Your task to perform on an android device: toggle airplane mode Image 0: 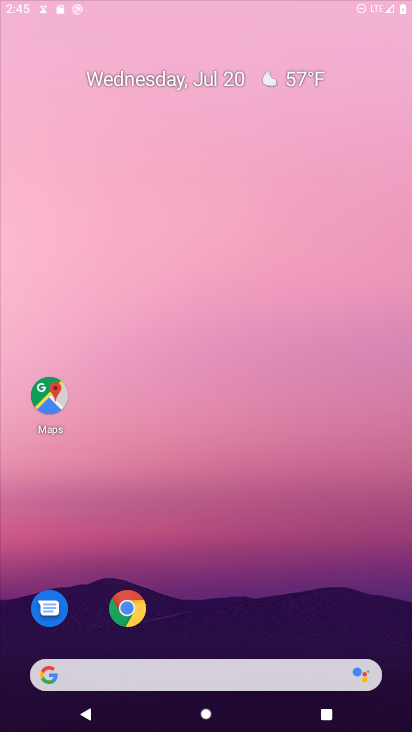
Step 0: drag from (239, 711) to (222, 356)
Your task to perform on an android device: toggle airplane mode Image 1: 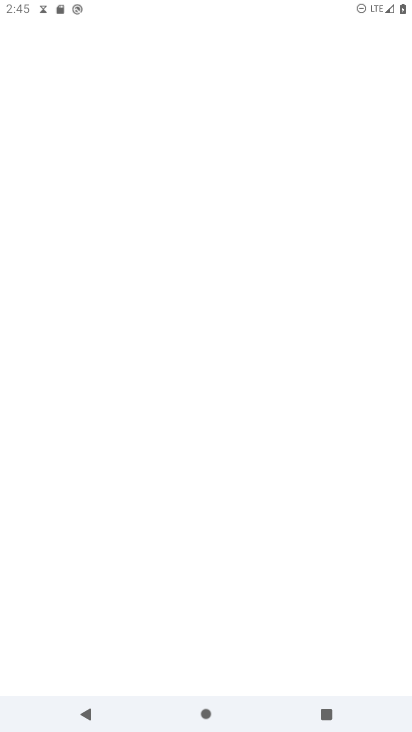
Step 1: press home button
Your task to perform on an android device: toggle airplane mode Image 2: 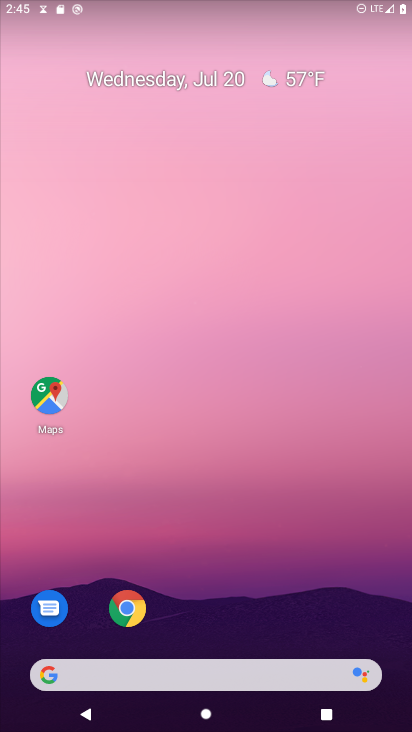
Step 2: drag from (235, 725) to (228, 270)
Your task to perform on an android device: toggle airplane mode Image 3: 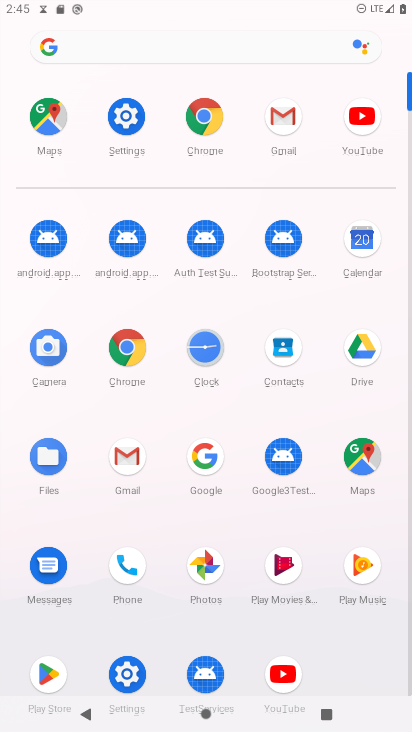
Step 3: click (128, 112)
Your task to perform on an android device: toggle airplane mode Image 4: 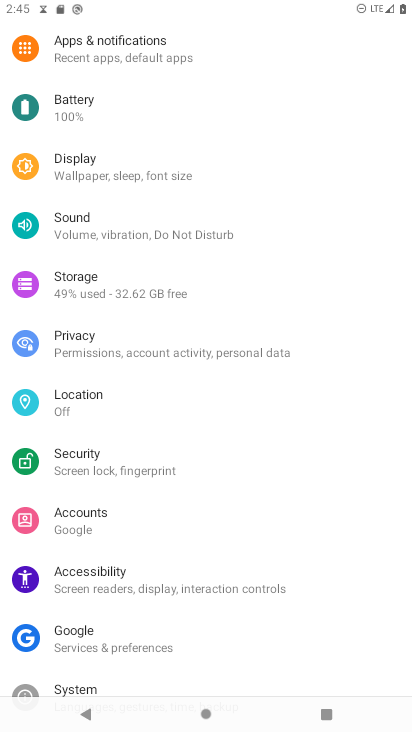
Step 4: drag from (162, 124) to (178, 521)
Your task to perform on an android device: toggle airplane mode Image 5: 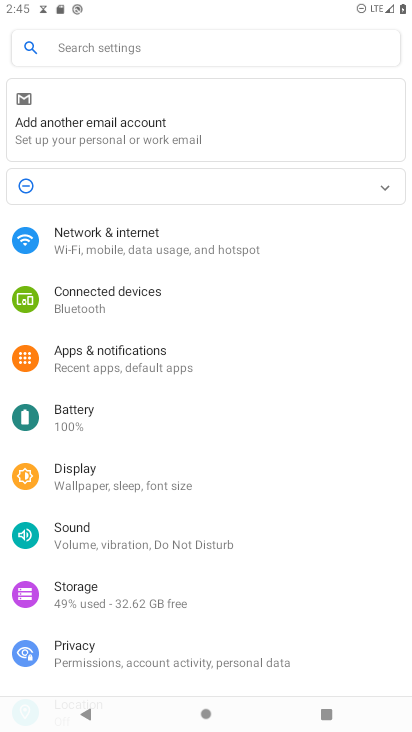
Step 5: click (94, 249)
Your task to perform on an android device: toggle airplane mode Image 6: 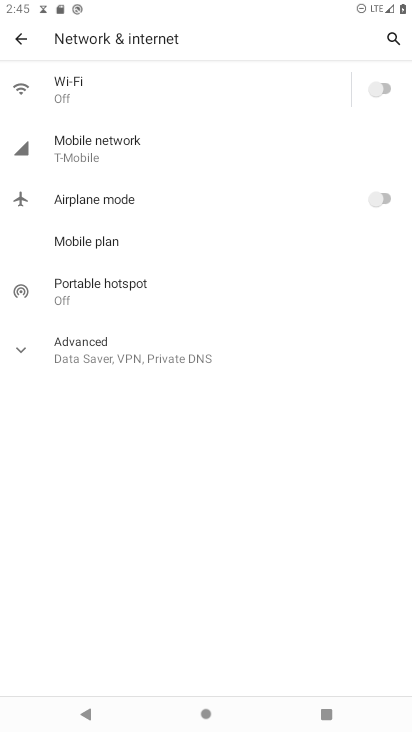
Step 6: click (386, 204)
Your task to perform on an android device: toggle airplane mode Image 7: 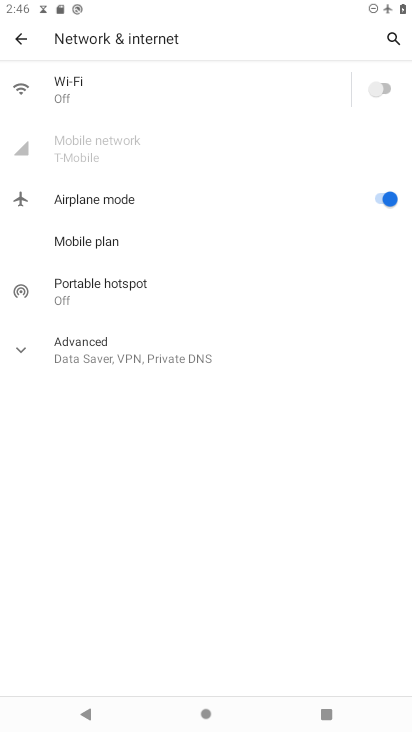
Step 7: task complete